Your task to perform on an android device: toggle location history Image 0: 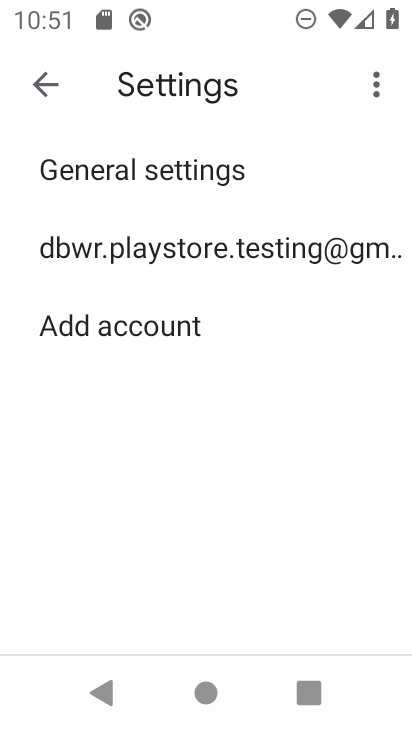
Step 0: click (230, 230)
Your task to perform on an android device: toggle location history Image 1: 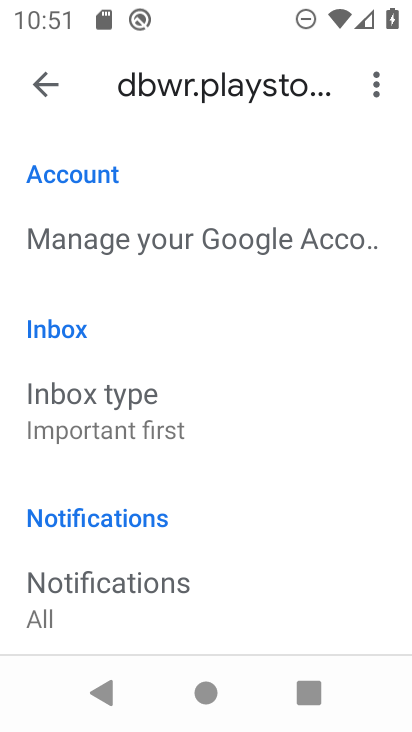
Step 1: press home button
Your task to perform on an android device: toggle location history Image 2: 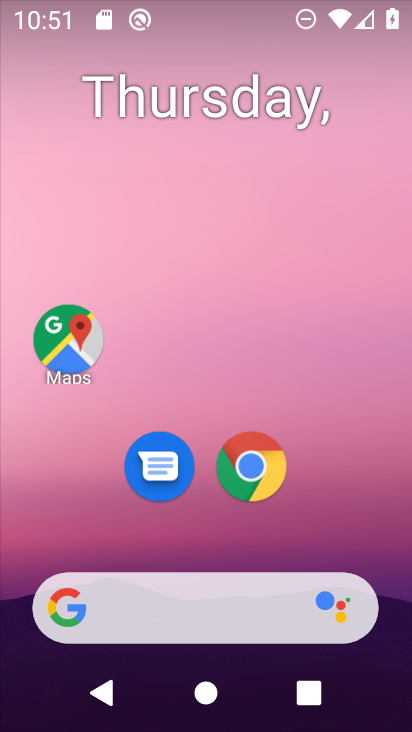
Step 2: drag from (358, 533) to (402, 61)
Your task to perform on an android device: toggle location history Image 3: 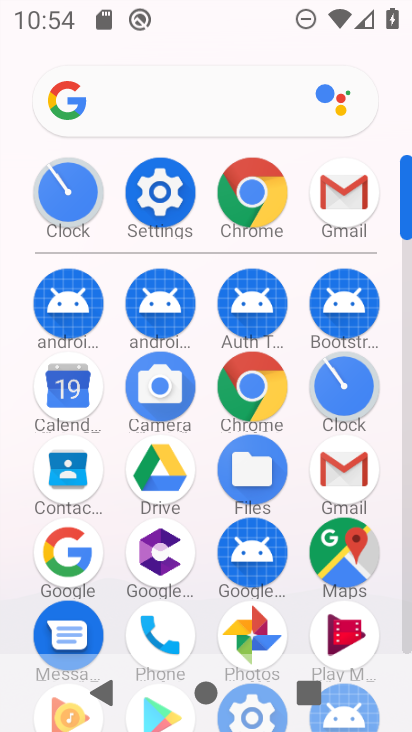
Step 3: click (145, 174)
Your task to perform on an android device: toggle location history Image 4: 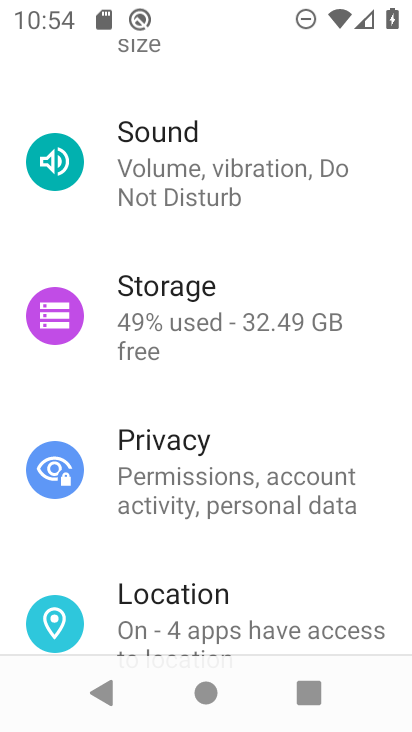
Step 4: click (278, 599)
Your task to perform on an android device: toggle location history Image 5: 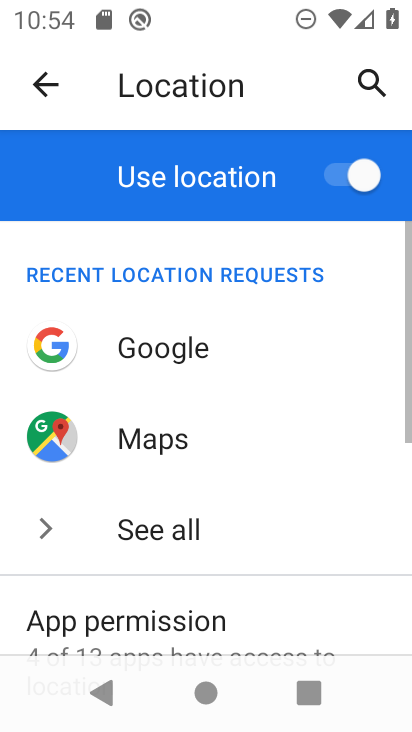
Step 5: task complete